Your task to perform on an android device: search for starred emails in the gmail app Image 0: 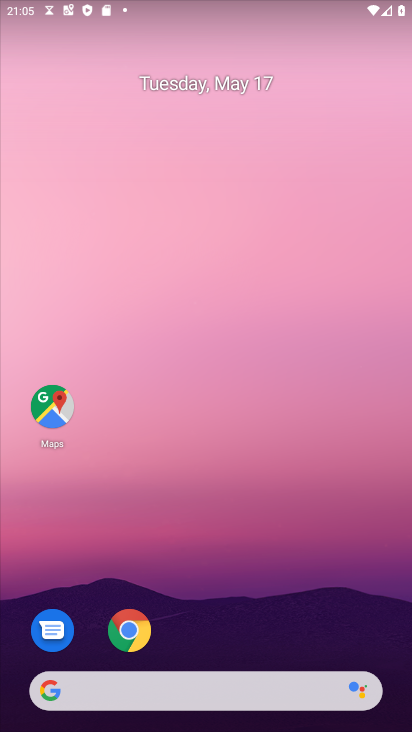
Step 0: drag from (189, 636) to (185, 191)
Your task to perform on an android device: search for starred emails in the gmail app Image 1: 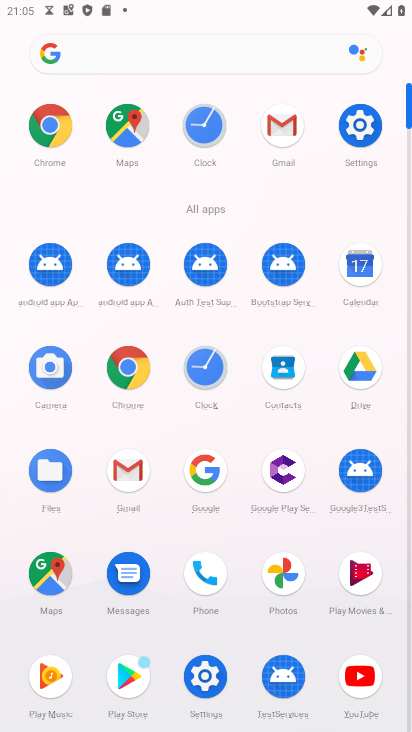
Step 1: click (142, 466)
Your task to perform on an android device: search for starred emails in the gmail app Image 2: 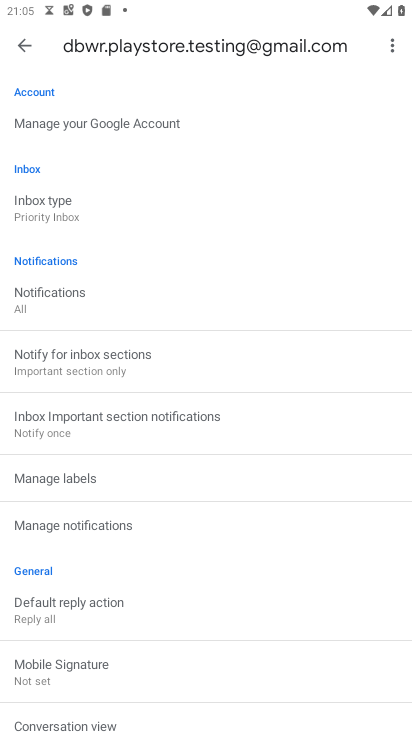
Step 2: press back button
Your task to perform on an android device: search for starred emails in the gmail app Image 3: 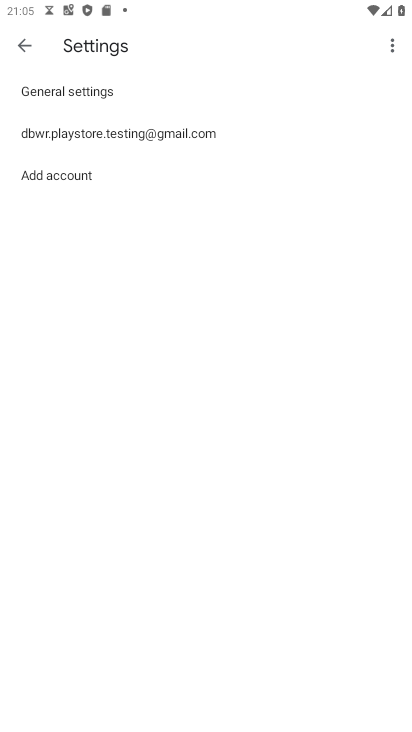
Step 3: press back button
Your task to perform on an android device: search for starred emails in the gmail app Image 4: 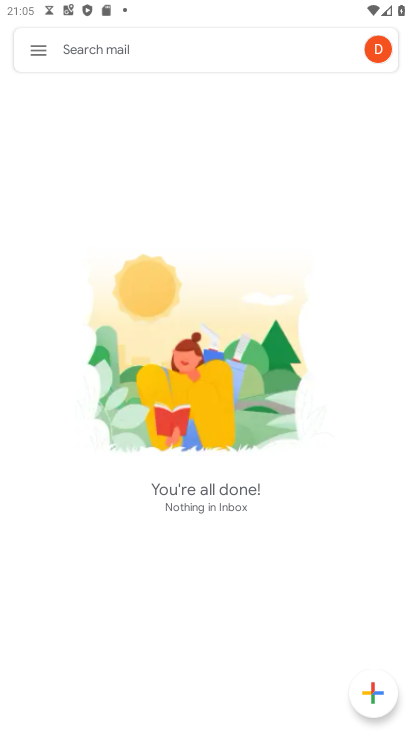
Step 4: click (41, 53)
Your task to perform on an android device: search for starred emails in the gmail app Image 5: 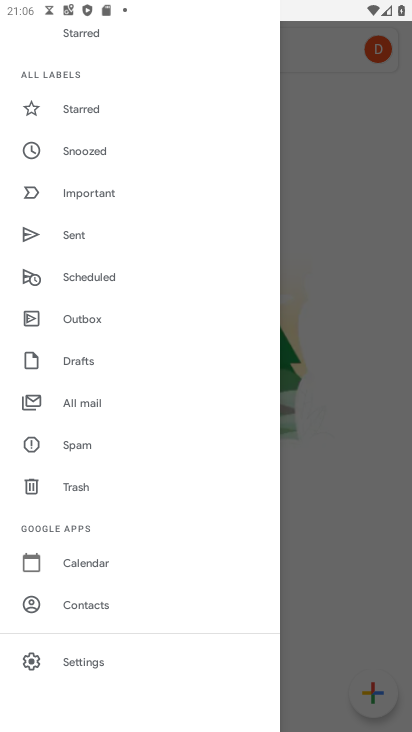
Step 5: click (77, 109)
Your task to perform on an android device: search for starred emails in the gmail app Image 6: 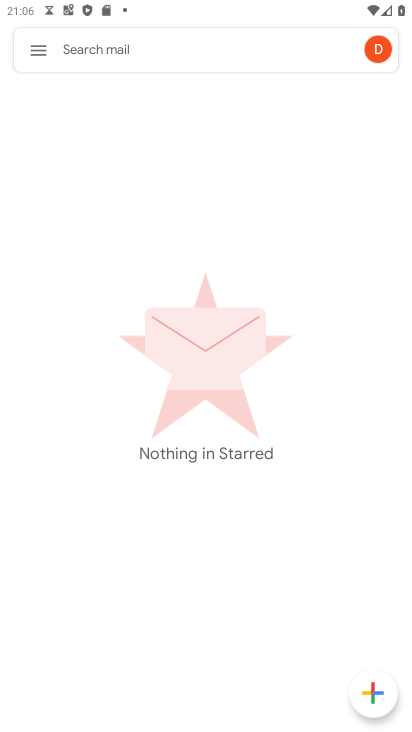
Step 6: click (42, 51)
Your task to perform on an android device: search for starred emails in the gmail app Image 7: 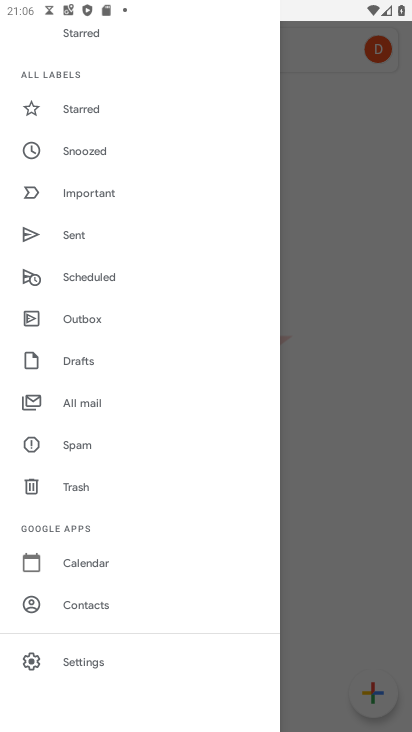
Step 7: task complete